Your task to perform on an android device: What's on my calendar today? Image 0: 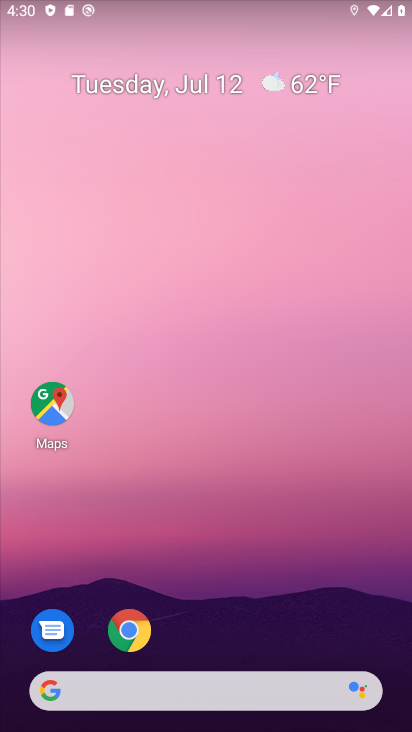
Step 0: drag from (207, 664) to (293, 122)
Your task to perform on an android device: What's on my calendar today? Image 1: 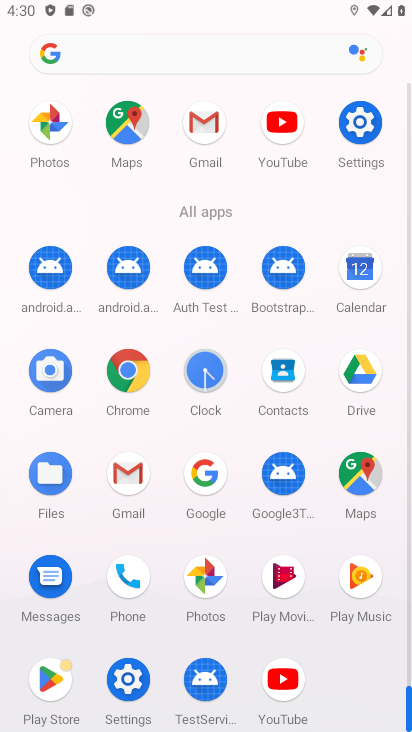
Step 1: click (350, 279)
Your task to perform on an android device: What's on my calendar today? Image 2: 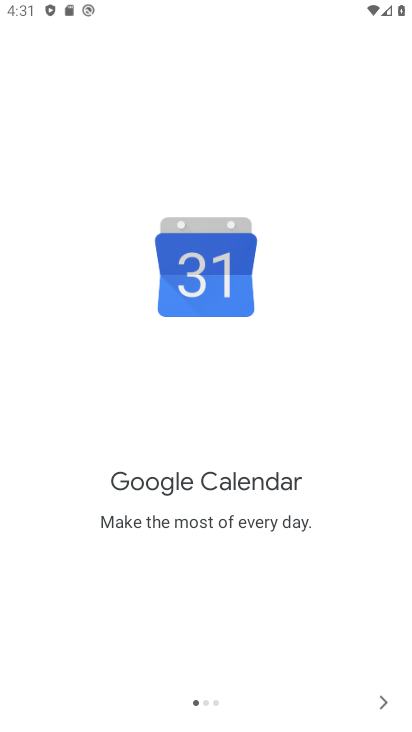
Step 2: click (379, 696)
Your task to perform on an android device: What's on my calendar today? Image 3: 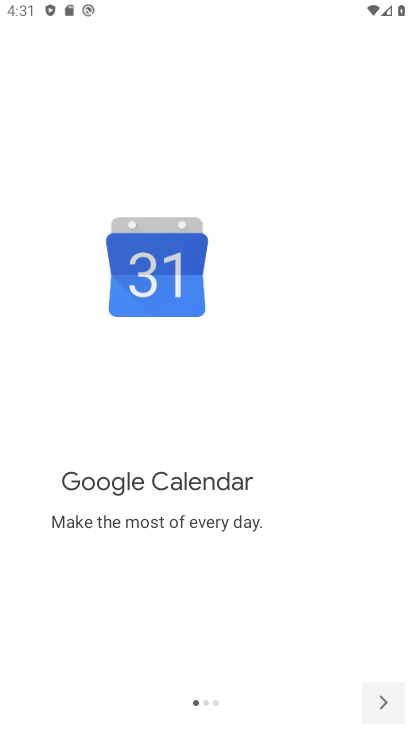
Step 3: click (379, 696)
Your task to perform on an android device: What's on my calendar today? Image 4: 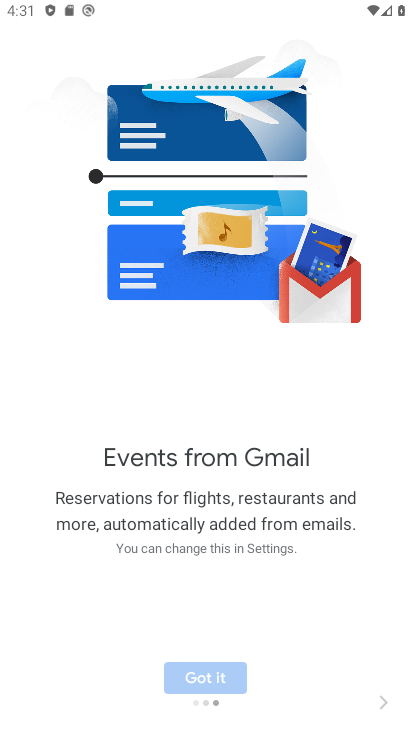
Step 4: click (379, 696)
Your task to perform on an android device: What's on my calendar today? Image 5: 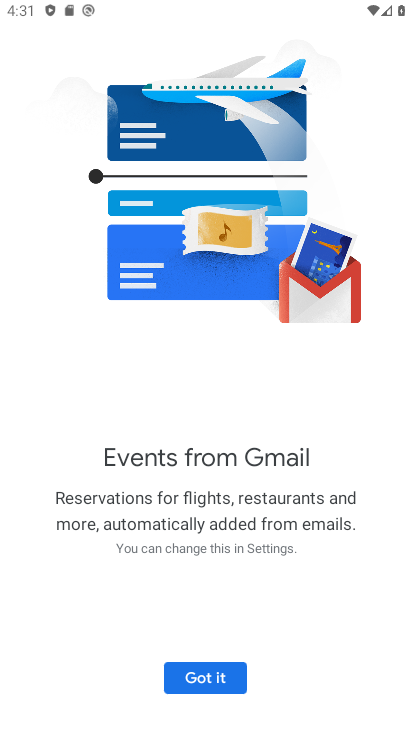
Step 5: click (217, 684)
Your task to perform on an android device: What's on my calendar today? Image 6: 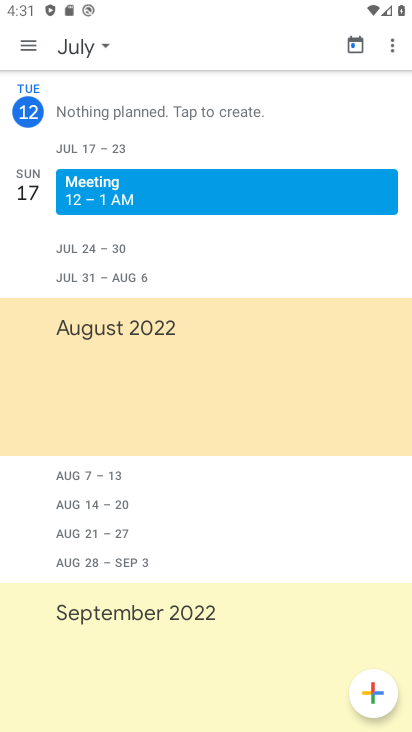
Step 6: click (34, 109)
Your task to perform on an android device: What's on my calendar today? Image 7: 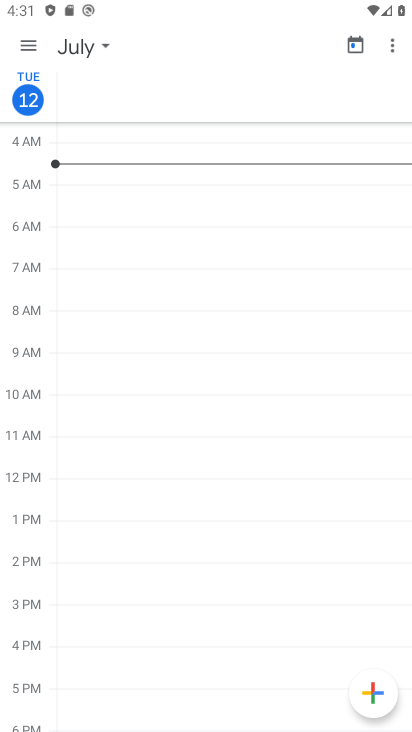
Step 7: task complete